Your task to perform on an android device: Open maps Image 0: 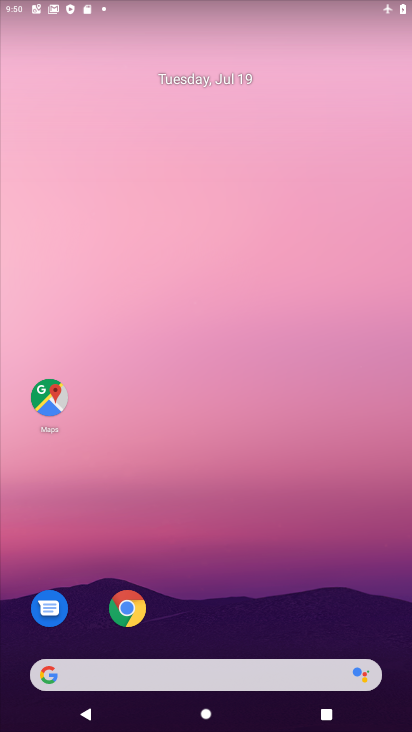
Step 0: click (45, 393)
Your task to perform on an android device: Open maps Image 1: 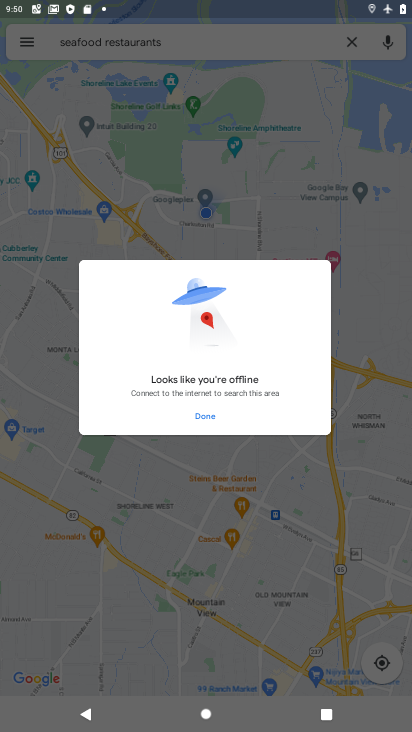
Step 1: task complete